Your task to perform on an android device: show emergency info Image 0: 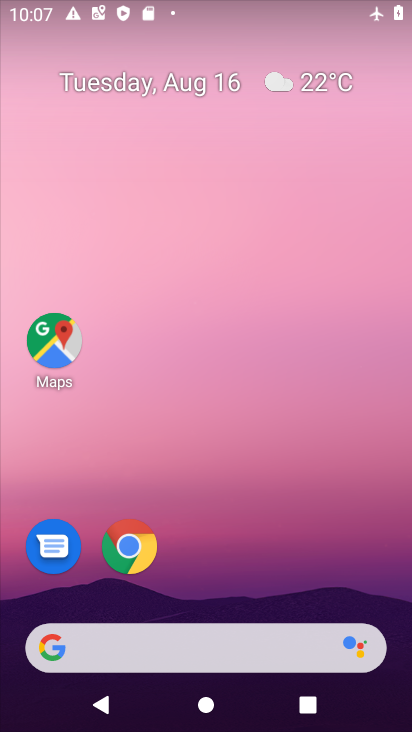
Step 0: drag from (209, 570) to (254, 0)
Your task to perform on an android device: show emergency info Image 1: 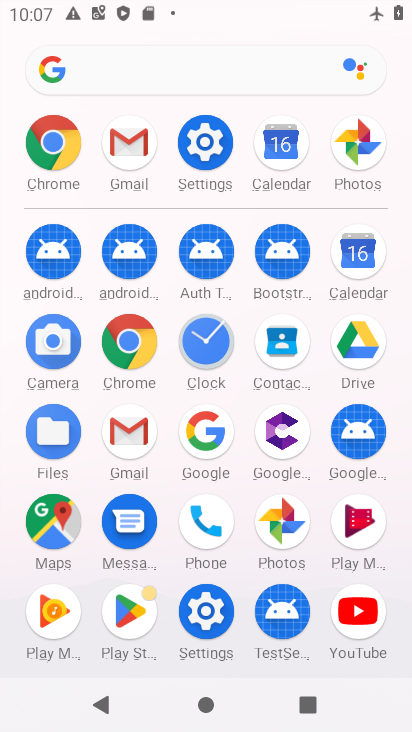
Step 1: click (204, 144)
Your task to perform on an android device: show emergency info Image 2: 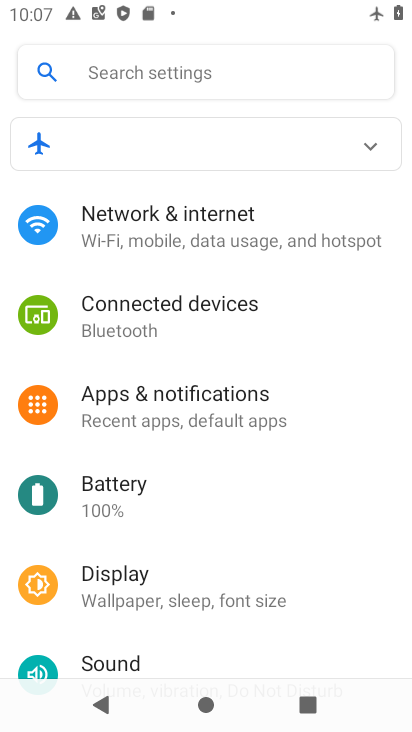
Step 2: drag from (197, 536) to (261, 0)
Your task to perform on an android device: show emergency info Image 3: 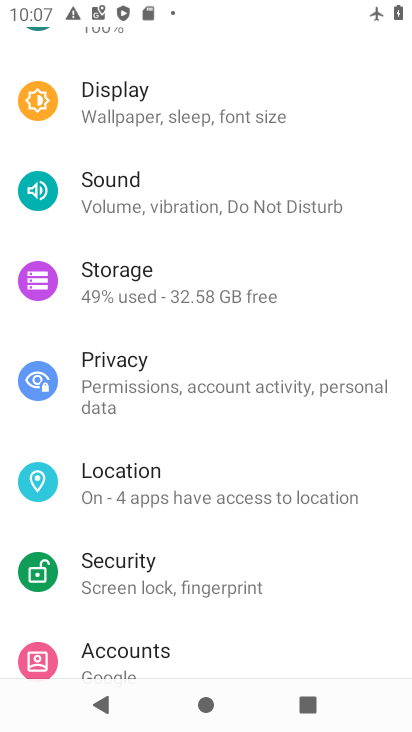
Step 3: drag from (212, 539) to (246, 0)
Your task to perform on an android device: show emergency info Image 4: 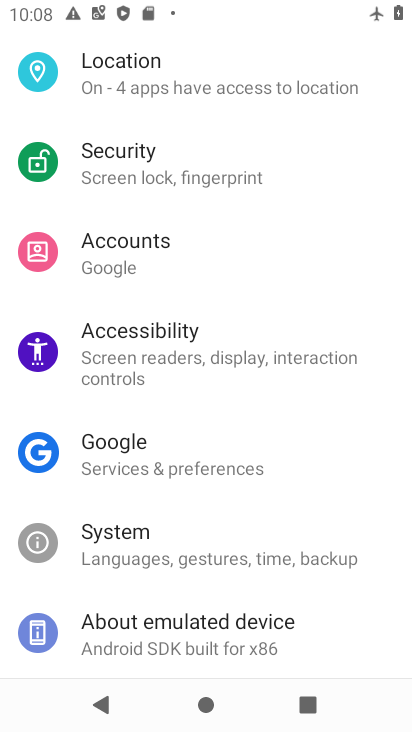
Step 4: click (200, 621)
Your task to perform on an android device: show emergency info Image 5: 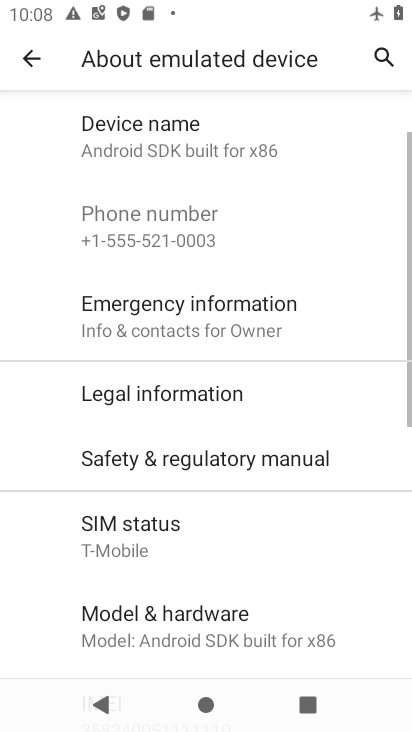
Step 5: click (263, 329)
Your task to perform on an android device: show emergency info Image 6: 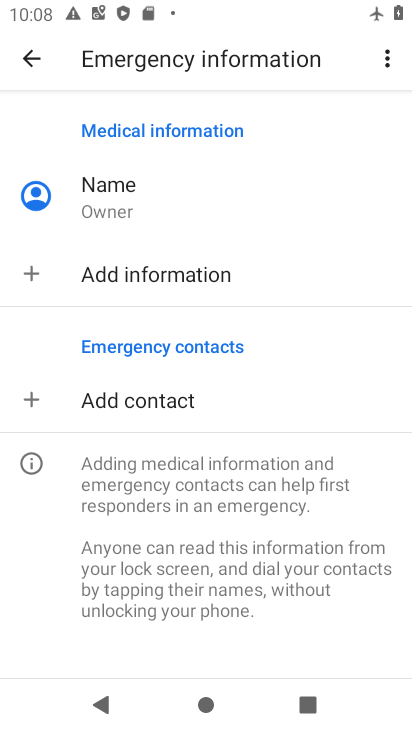
Step 6: task complete